Your task to perform on an android device: toggle translation in the chrome app Image 0: 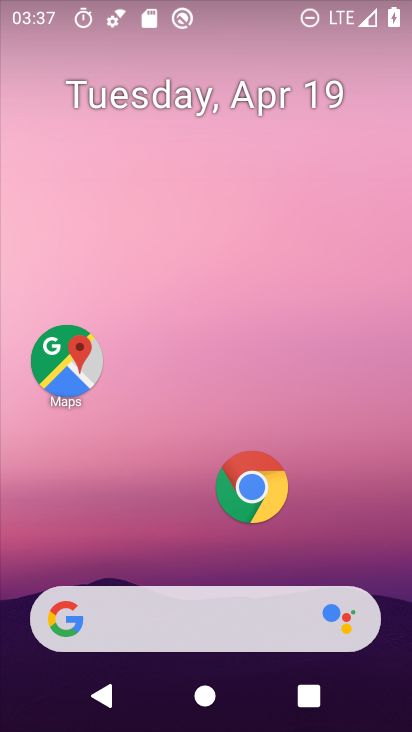
Step 0: drag from (266, 351) to (301, 45)
Your task to perform on an android device: toggle translation in the chrome app Image 1: 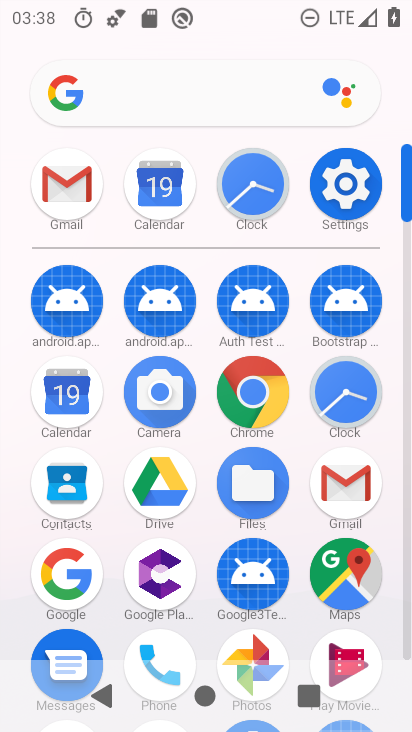
Step 1: click (244, 398)
Your task to perform on an android device: toggle translation in the chrome app Image 2: 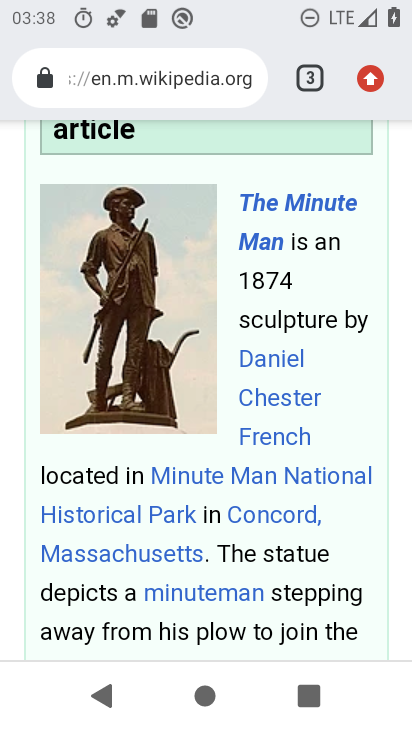
Step 2: click (364, 80)
Your task to perform on an android device: toggle translation in the chrome app Image 3: 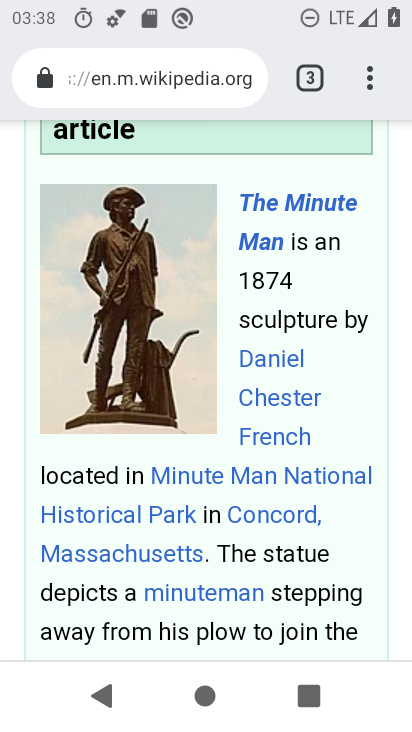
Step 3: drag from (364, 81) to (119, 550)
Your task to perform on an android device: toggle translation in the chrome app Image 4: 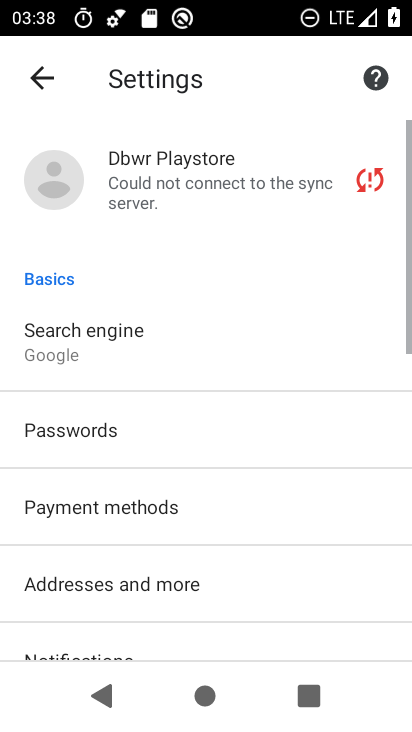
Step 4: drag from (195, 567) to (351, 147)
Your task to perform on an android device: toggle translation in the chrome app Image 5: 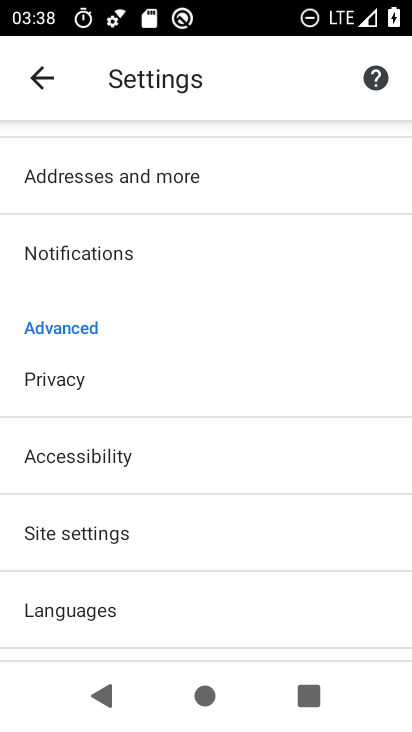
Step 5: drag from (110, 596) to (212, 206)
Your task to perform on an android device: toggle translation in the chrome app Image 6: 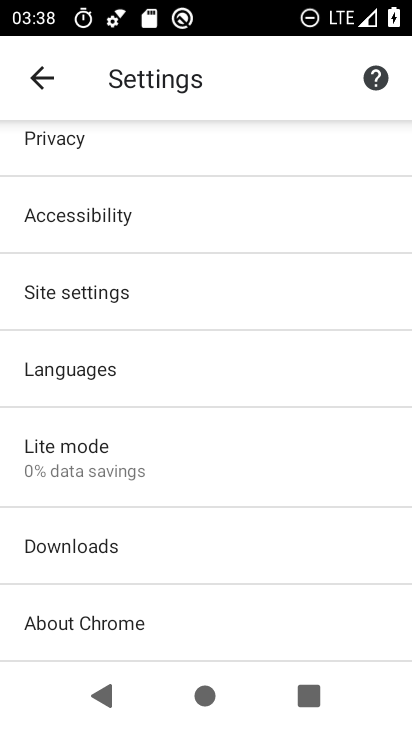
Step 6: click (127, 374)
Your task to perform on an android device: toggle translation in the chrome app Image 7: 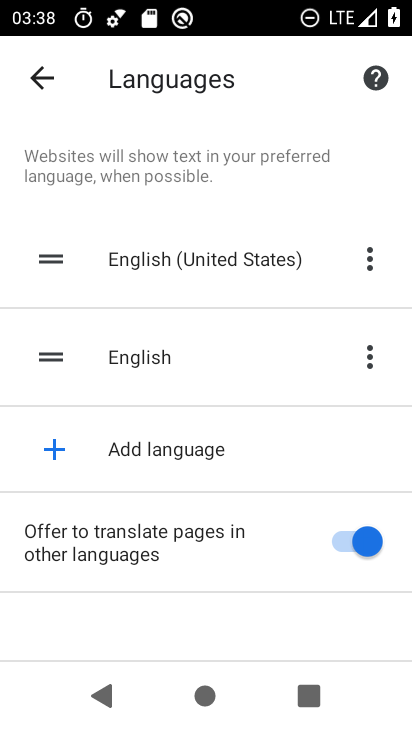
Step 7: click (373, 538)
Your task to perform on an android device: toggle translation in the chrome app Image 8: 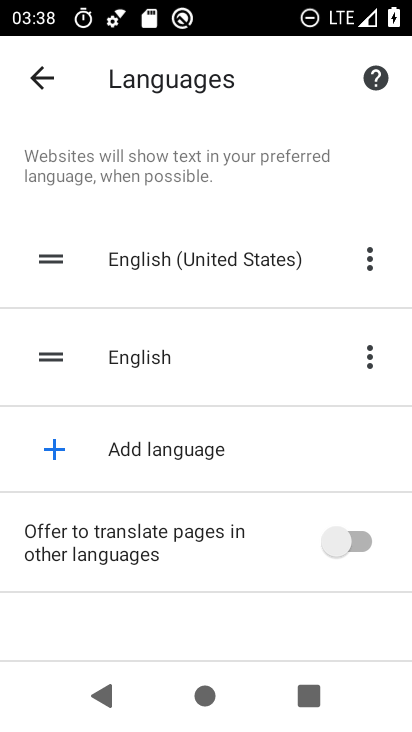
Step 8: task complete